Your task to perform on an android device: manage bookmarks in the chrome app Image 0: 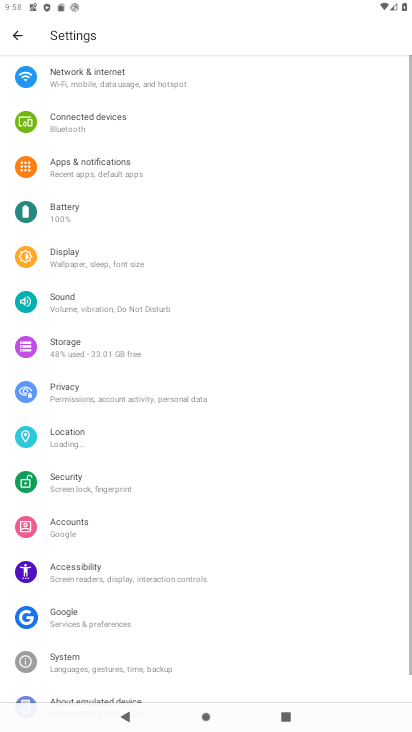
Step 0: press home button
Your task to perform on an android device: manage bookmarks in the chrome app Image 1: 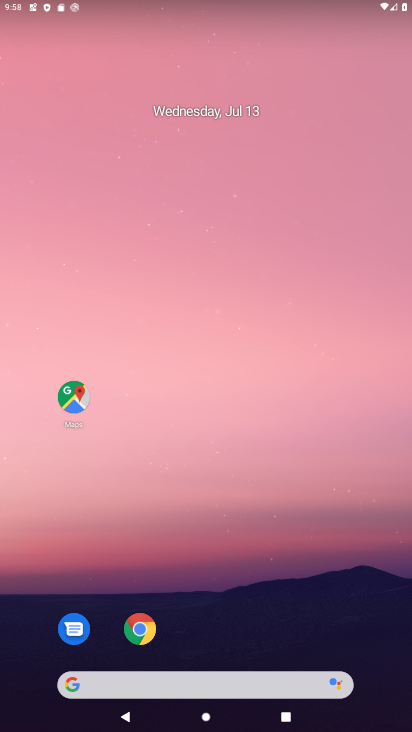
Step 1: click (137, 621)
Your task to perform on an android device: manage bookmarks in the chrome app Image 2: 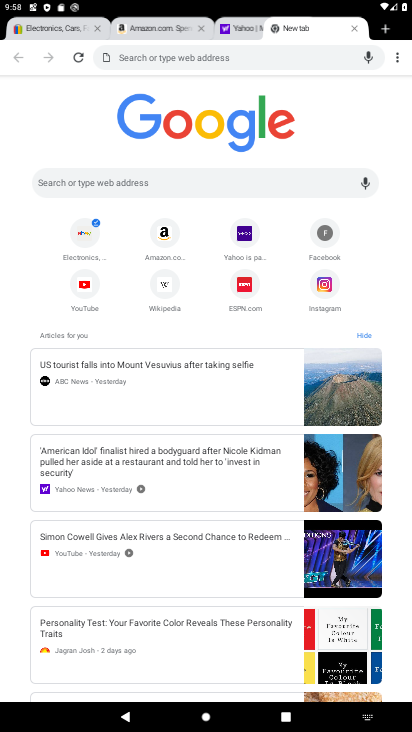
Step 2: click (395, 55)
Your task to perform on an android device: manage bookmarks in the chrome app Image 3: 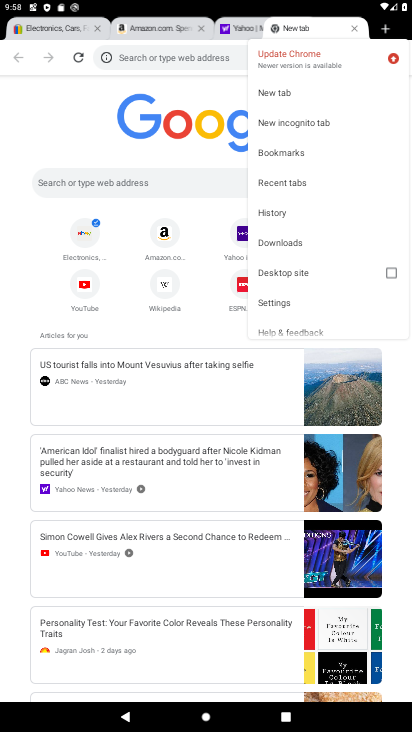
Step 3: click (308, 150)
Your task to perform on an android device: manage bookmarks in the chrome app Image 4: 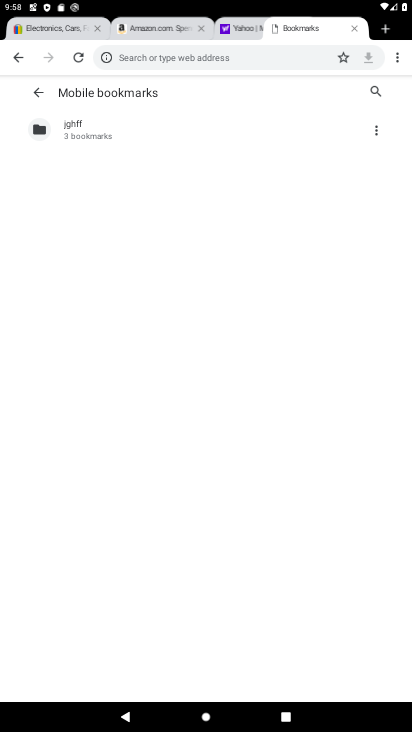
Step 4: task complete